Your task to perform on an android device: Add bose quietcomfort 35 to the cart on ebay.com, then select checkout. Image 0: 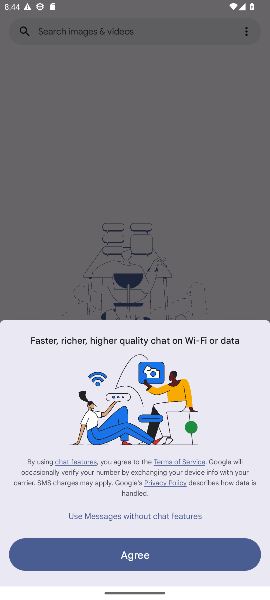
Step 0: press home button
Your task to perform on an android device: Add bose quietcomfort 35 to the cart on ebay.com, then select checkout. Image 1: 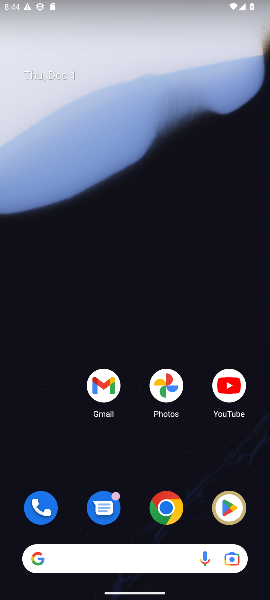
Step 1: click (166, 506)
Your task to perform on an android device: Add bose quietcomfort 35 to the cart on ebay.com, then select checkout. Image 2: 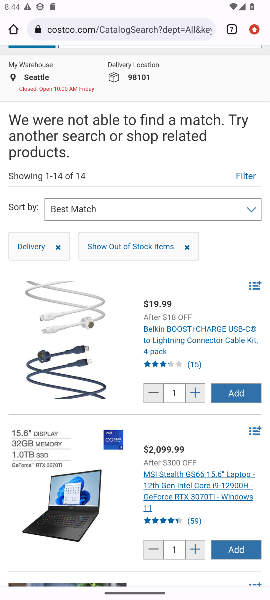
Step 2: click (223, 30)
Your task to perform on an android device: Add bose quietcomfort 35 to the cart on ebay.com, then select checkout. Image 3: 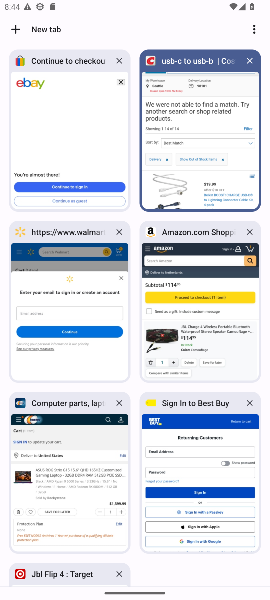
Step 3: click (72, 102)
Your task to perform on an android device: Add bose quietcomfort 35 to the cart on ebay.com, then select checkout. Image 4: 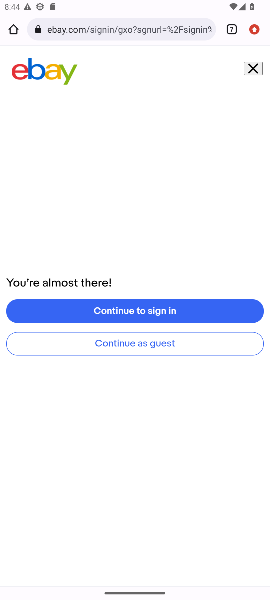
Step 4: click (255, 66)
Your task to perform on an android device: Add bose quietcomfort 35 to the cart on ebay.com, then select checkout. Image 5: 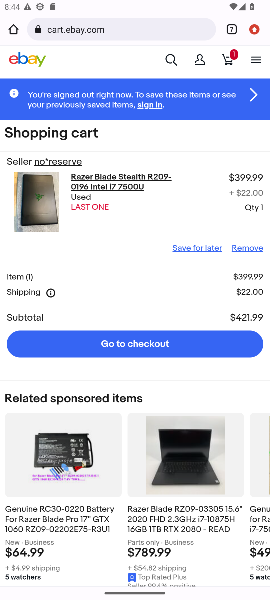
Step 5: click (173, 61)
Your task to perform on an android device: Add bose quietcomfort 35 to the cart on ebay.com, then select checkout. Image 6: 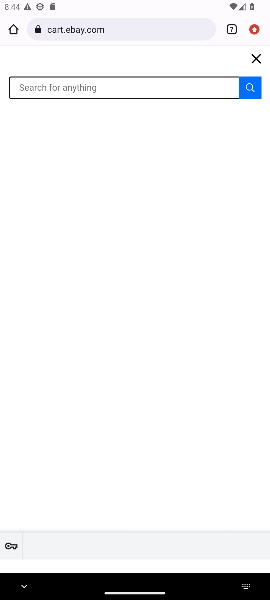
Step 6: type "bose quietcomfort 35"
Your task to perform on an android device: Add bose quietcomfort 35 to the cart on ebay.com, then select checkout. Image 7: 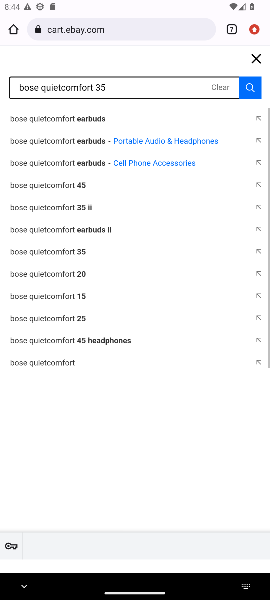
Step 7: click (249, 85)
Your task to perform on an android device: Add bose quietcomfort 35 to the cart on ebay.com, then select checkout. Image 8: 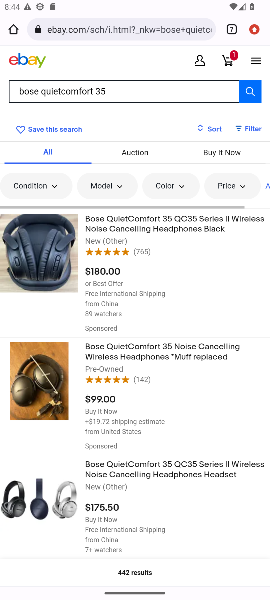
Step 8: click (179, 225)
Your task to perform on an android device: Add bose quietcomfort 35 to the cart on ebay.com, then select checkout. Image 9: 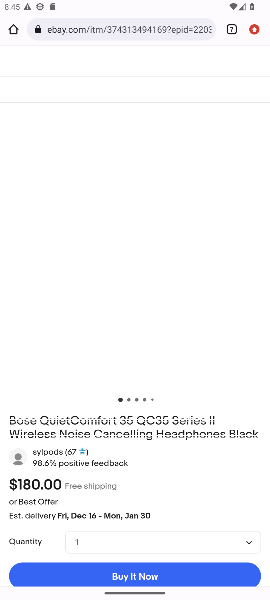
Step 9: click (112, 581)
Your task to perform on an android device: Add bose quietcomfort 35 to the cart on ebay.com, then select checkout. Image 10: 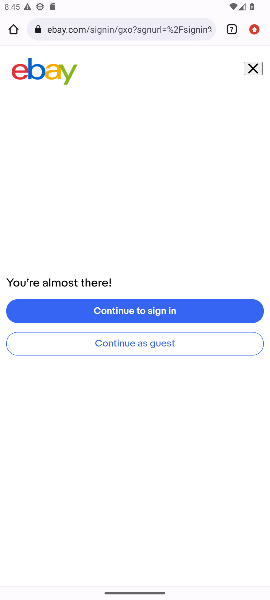
Step 10: press back button
Your task to perform on an android device: Add bose quietcomfort 35 to the cart on ebay.com, then select checkout. Image 11: 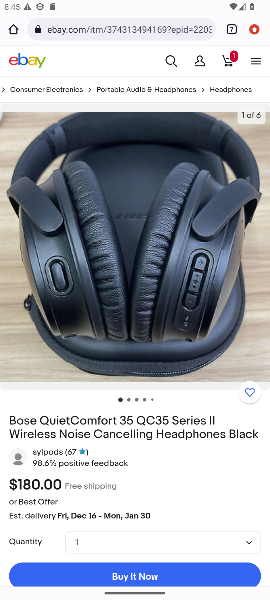
Step 11: drag from (97, 489) to (126, 265)
Your task to perform on an android device: Add bose quietcomfort 35 to the cart on ebay.com, then select checkout. Image 12: 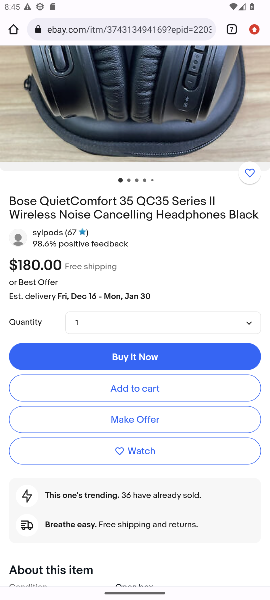
Step 12: click (120, 382)
Your task to perform on an android device: Add bose quietcomfort 35 to the cart on ebay.com, then select checkout. Image 13: 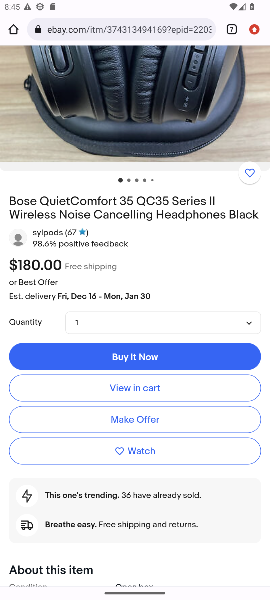
Step 13: click (120, 382)
Your task to perform on an android device: Add bose quietcomfort 35 to the cart on ebay.com, then select checkout. Image 14: 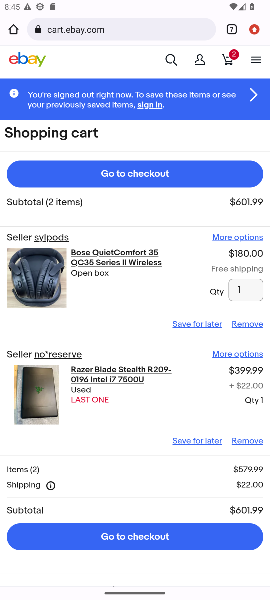
Step 14: click (98, 536)
Your task to perform on an android device: Add bose quietcomfort 35 to the cart on ebay.com, then select checkout. Image 15: 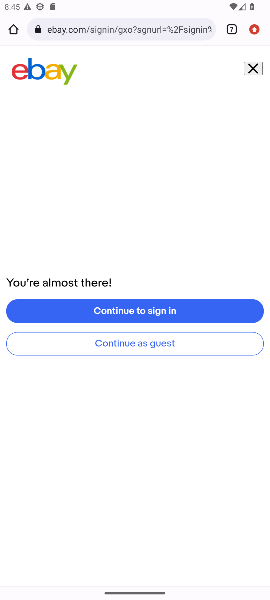
Step 15: task complete